Your task to perform on an android device: Show the shopping cart on newegg. Search for corsair k70 on newegg, select the first entry, add it to the cart, then select checkout. Image 0: 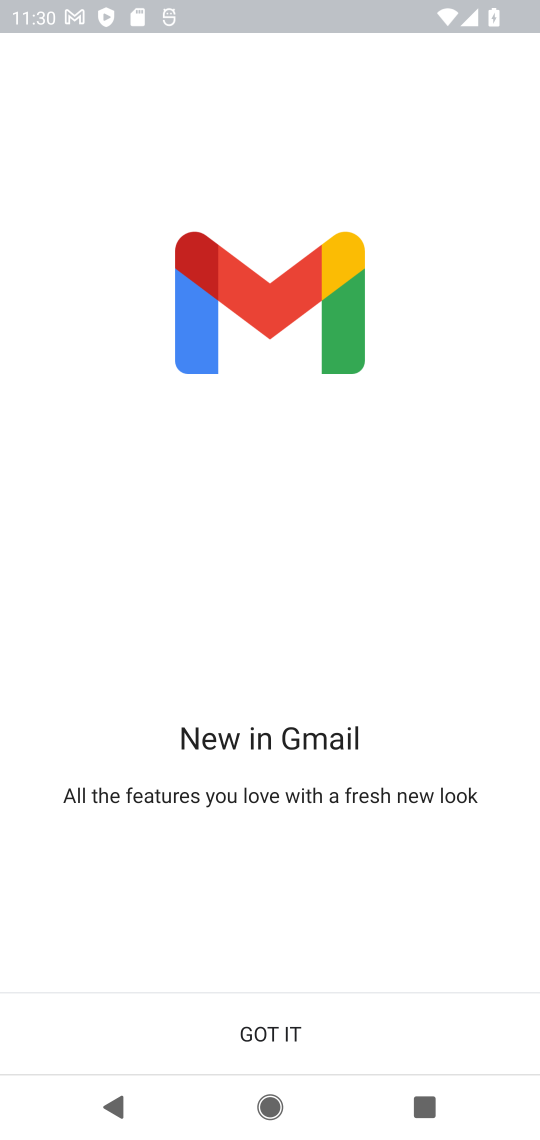
Step 0: press home button
Your task to perform on an android device: Show the shopping cart on newegg. Search for corsair k70 on newegg, select the first entry, add it to the cart, then select checkout. Image 1: 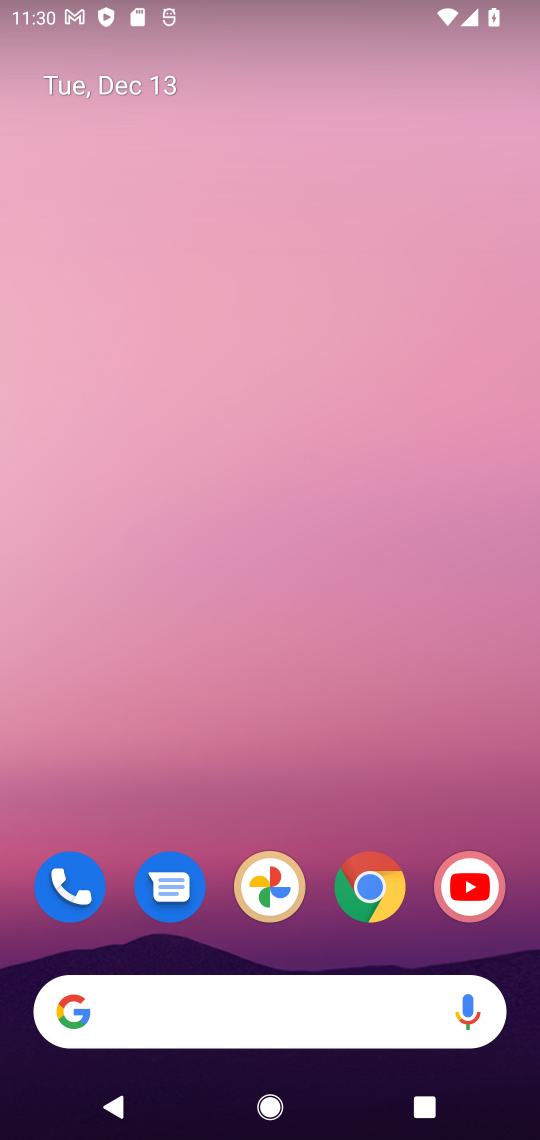
Step 1: drag from (279, 903) to (320, 601)
Your task to perform on an android device: Show the shopping cart on newegg. Search for corsair k70 on newegg, select the first entry, add it to the cart, then select checkout. Image 2: 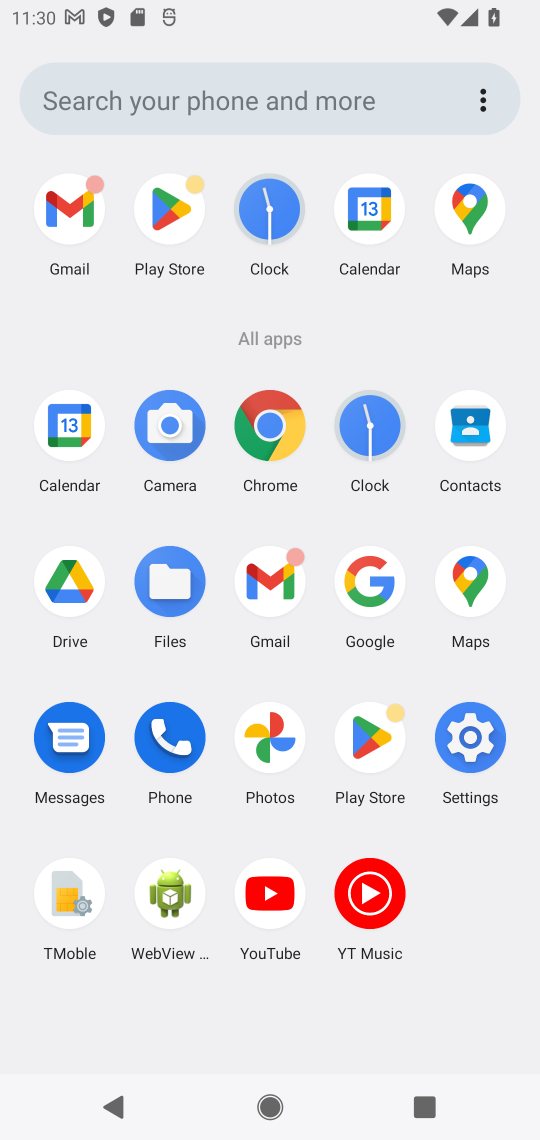
Step 2: click (370, 574)
Your task to perform on an android device: Show the shopping cart on newegg. Search for corsair k70 on newegg, select the first entry, add it to the cart, then select checkout. Image 3: 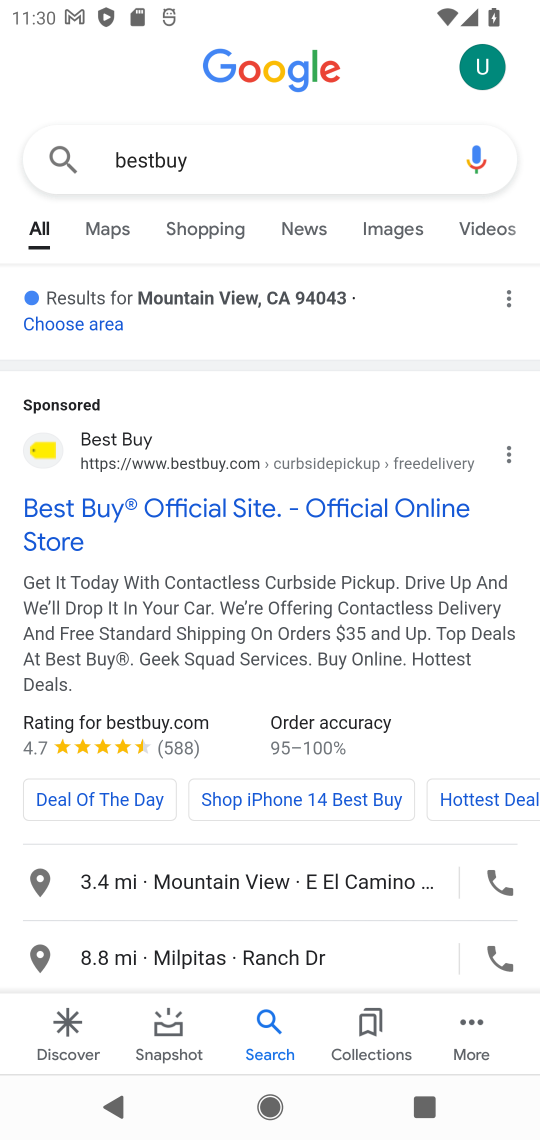
Step 3: click (135, 165)
Your task to perform on an android device: Show the shopping cart on newegg. Search for corsair k70 on newegg, select the first entry, add it to the cart, then select checkout. Image 4: 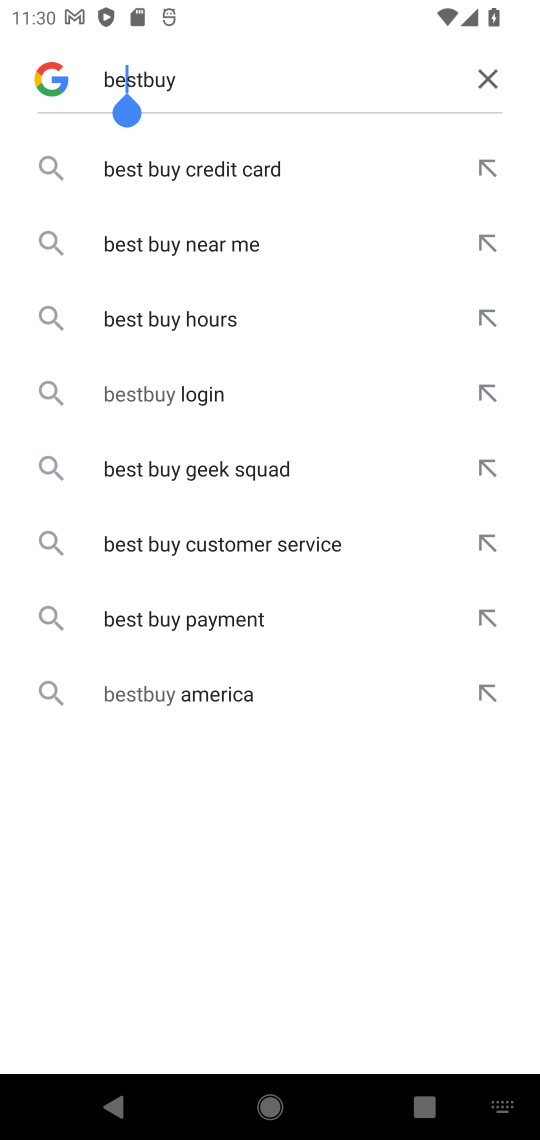
Step 4: click (491, 76)
Your task to perform on an android device: Show the shopping cart on newegg. Search for corsair k70 on newegg, select the first entry, add it to the cart, then select checkout. Image 5: 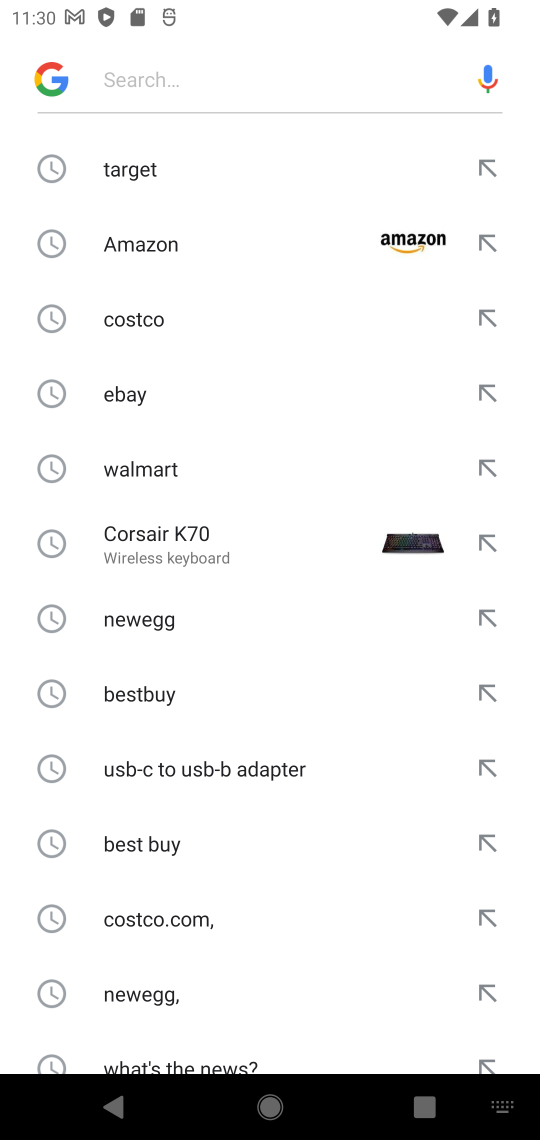
Step 5: click (113, 619)
Your task to perform on an android device: Show the shopping cart on newegg. Search for corsair k70 on newegg, select the first entry, add it to the cart, then select checkout. Image 6: 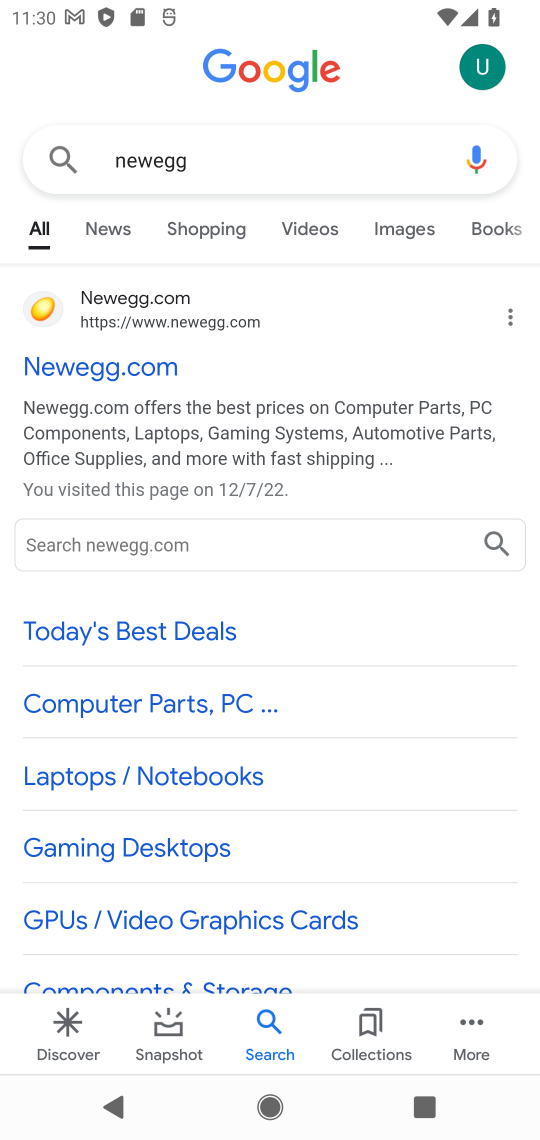
Step 6: click (143, 161)
Your task to perform on an android device: Show the shopping cart on newegg. Search for corsair k70 on newegg, select the first entry, add it to the cart, then select checkout. Image 7: 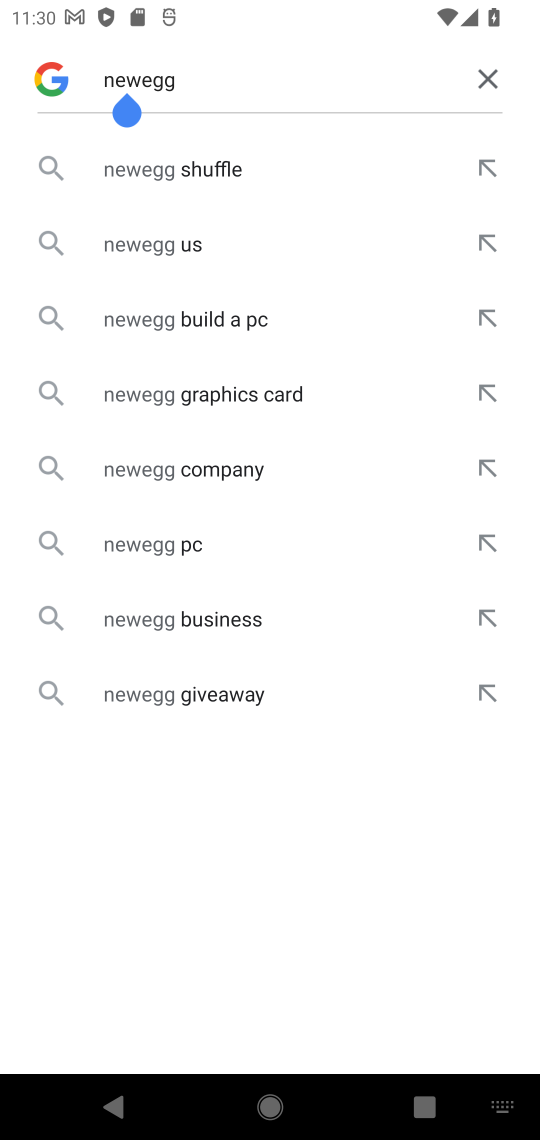
Step 7: click (483, 83)
Your task to perform on an android device: Show the shopping cart on newegg. Search for corsair k70 on newegg, select the first entry, add it to the cart, then select checkout. Image 8: 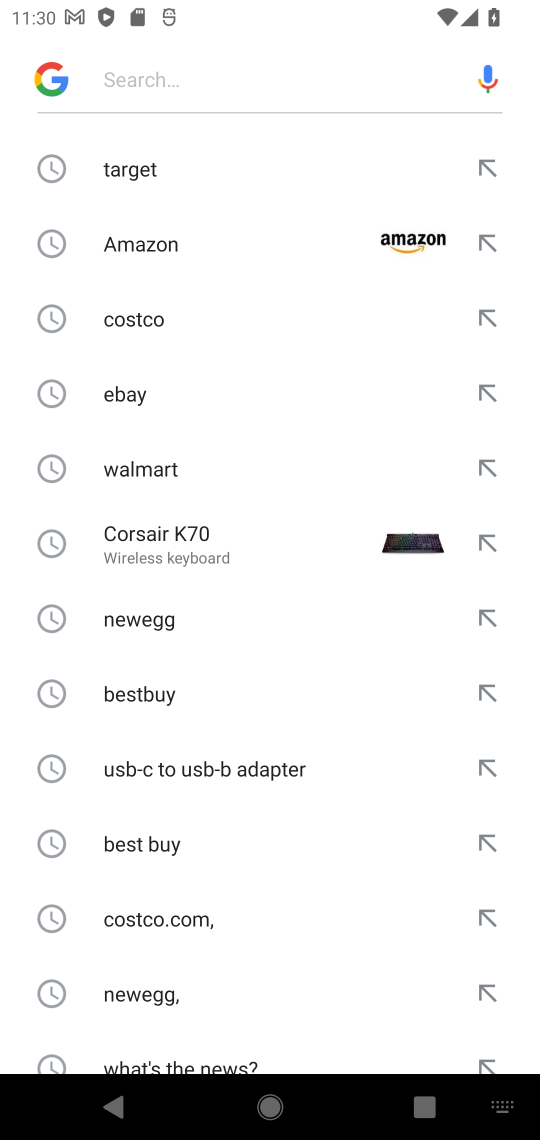
Step 8: click (132, 623)
Your task to perform on an android device: Show the shopping cart on newegg. Search for corsair k70 on newegg, select the first entry, add it to the cart, then select checkout. Image 9: 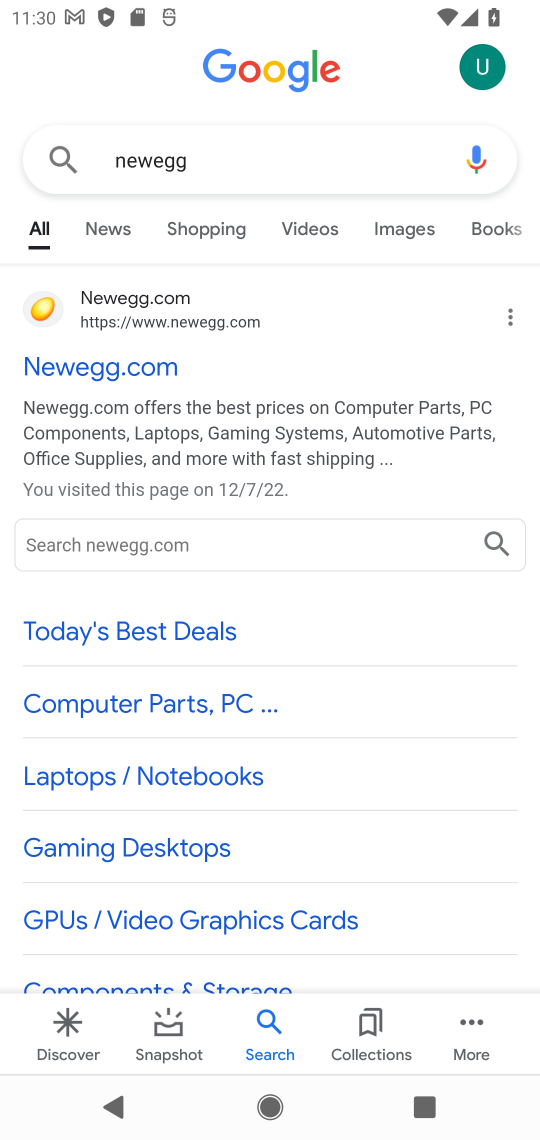
Step 9: click (112, 371)
Your task to perform on an android device: Show the shopping cart on newegg. Search for corsair k70 on newegg, select the first entry, add it to the cart, then select checkout. Image 10: 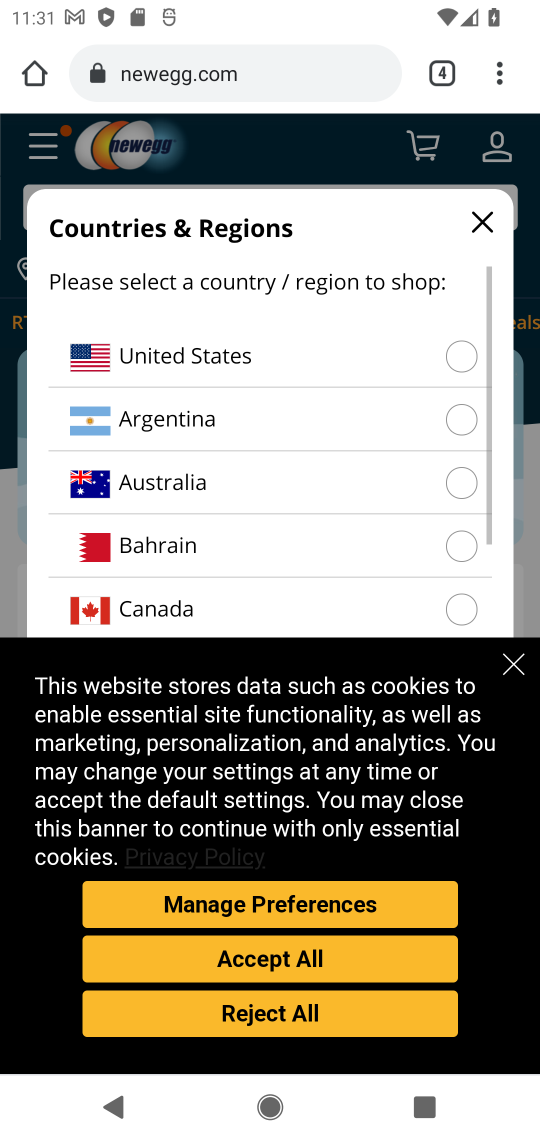
Step 10: click (476, 222)
Your task to perform on an android device: Show the shopping cart on newegg. Search for corsair k70 on newegg, select the first entry, add it to the cart, then select checkout. Image 11: 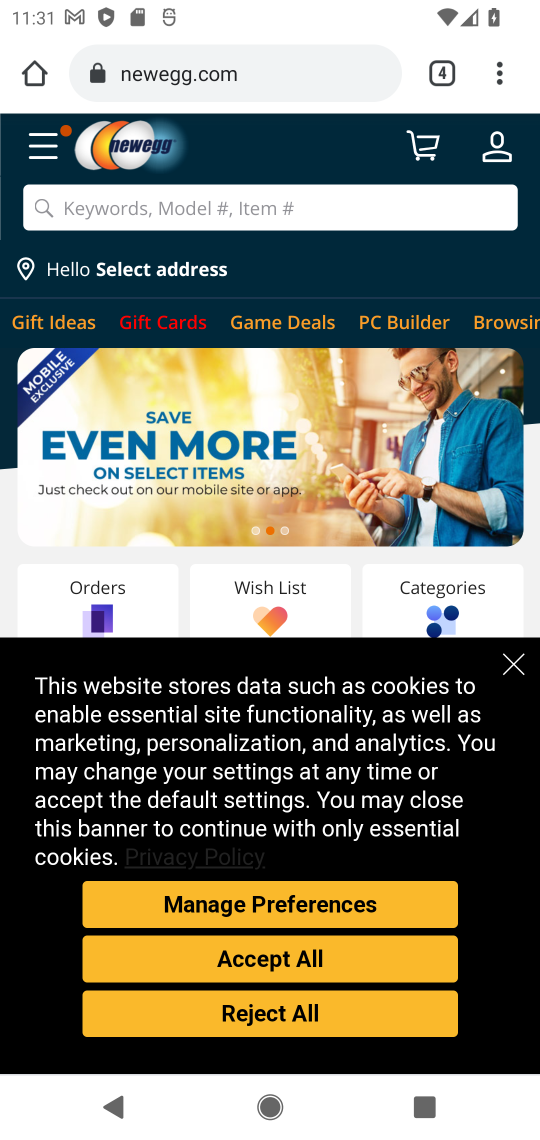
Step 11: click (183, 205)
Your task to perform on an android device: Show the shopping cart on newegg. Search for corsair k70 on newegg, select the first entry, add it to the cart, then select checkout. Image 12: 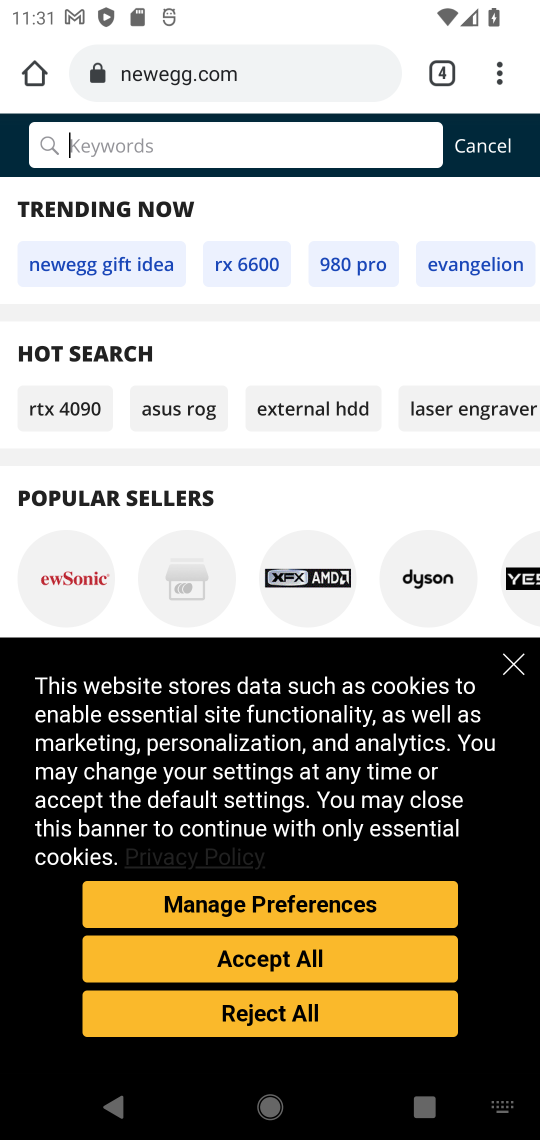
Step 12: click (490, 148)
Your task to perform on an android device: Show the shopping cart on newegg. Search for corsair k70 on newegg, select the first entry, add it to the cart, then select checkout. Image 13: 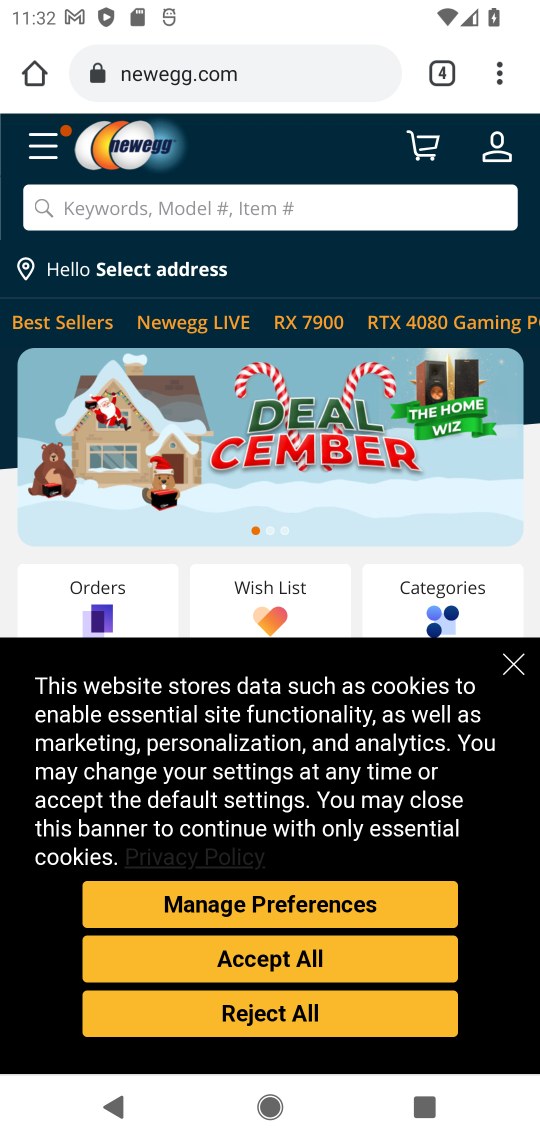
Step 13: click (110, 204)
Your task to perform on an android device: Show the shopping cart on newegg. Search for corsair k70 on newegg, select the first entry, add it to the cart, then select checkout. Image 14: 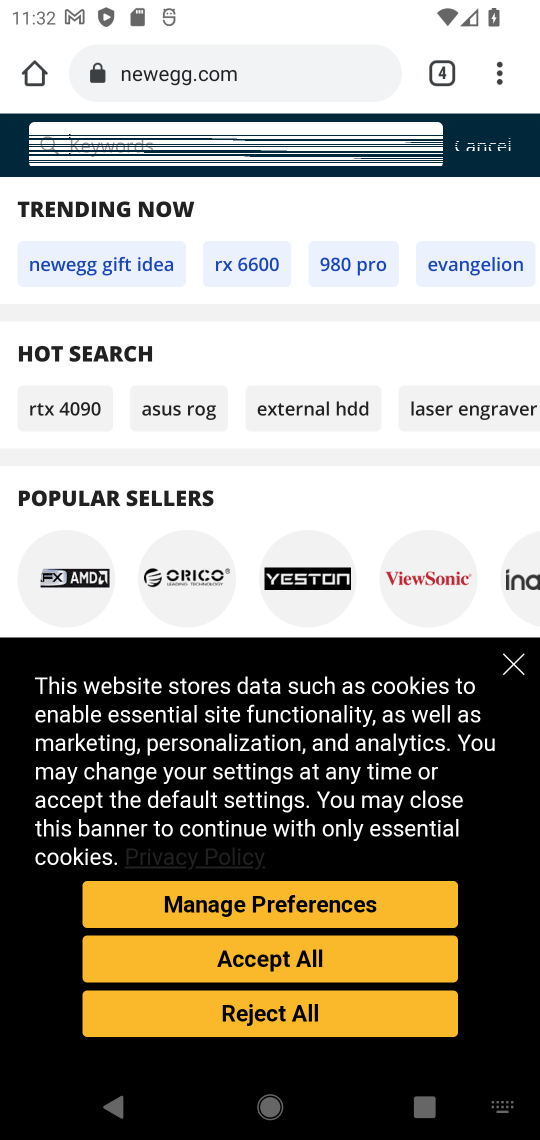
Step 14: type "corsair k70"
Your task to perform on an android device: Show the shopping cart on newegg. Search for corsair k70 on newegg, select the first entry, add it to the cart, then select checkout. Image 15: 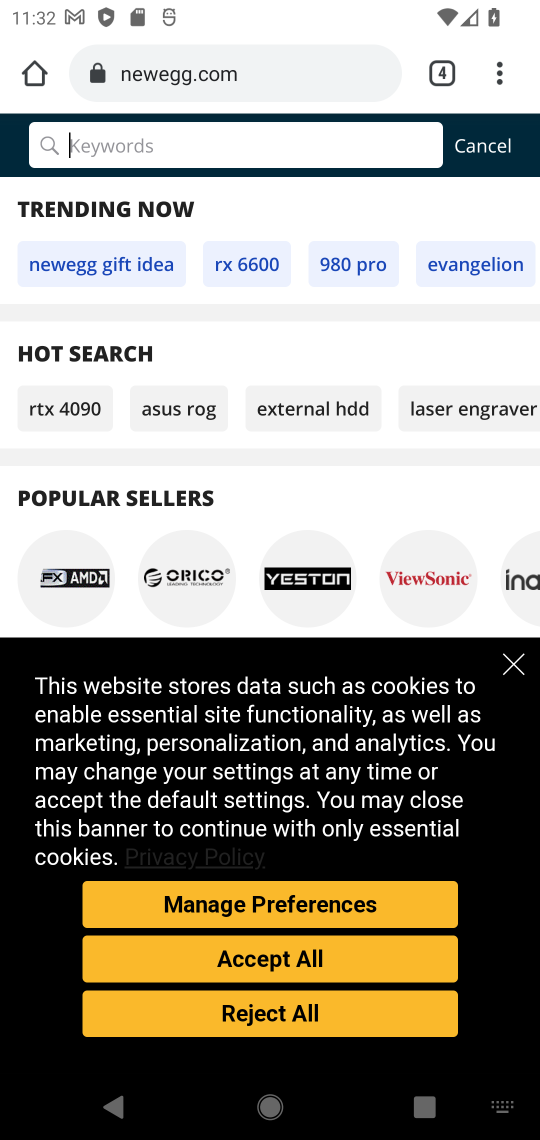
Step 15: click (53, 151)
Your task to perform on an android device: Show the shopping cart on newegg. Search for corsair k70 on newegg, select the first entry, add it to the cart, then select checkout. Image 16: 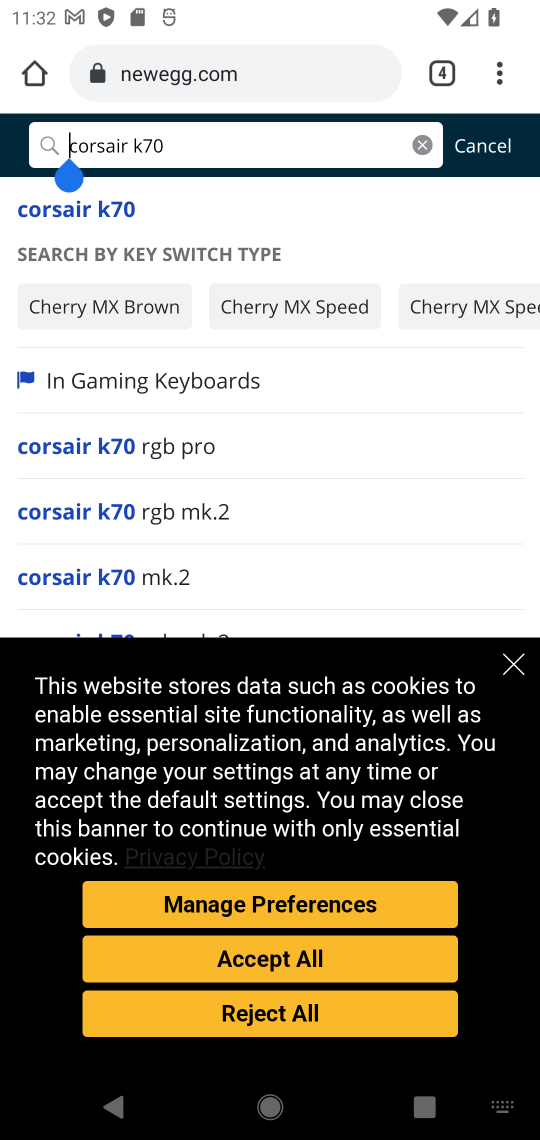
Step 16: click (116, 212)
Your task to perform on an android device: Show the shopping cart on newegg. Search for corsair k70 on newegg, select the first entry, add it to the cart, then select checkout. Image 17: 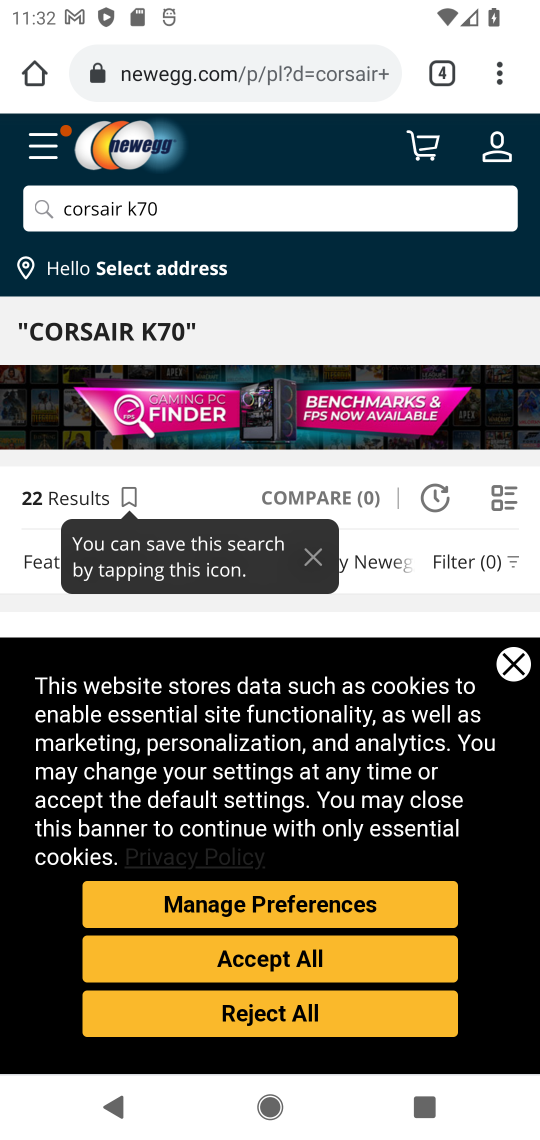
Step 17: click (523, 662)
Your task to perform on an android device: Show the shopping cart on newegg. Search for corsair k70 on newegg, select the first entry, add it to the cart, then select checkout. Image 18: 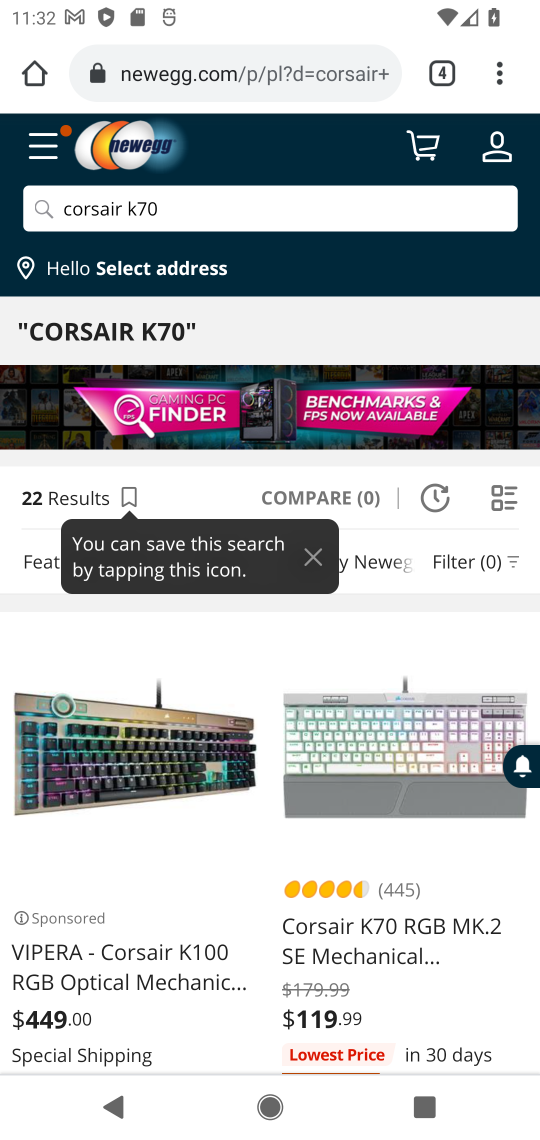
Step 18: drag from (274, 950) to (344, 475)
Your task to perform on an android device: Show the shopping cart on newegg. Search for corsair k70 on newegg, select the first entry, add it to the cart, then select checkout. Image 19: 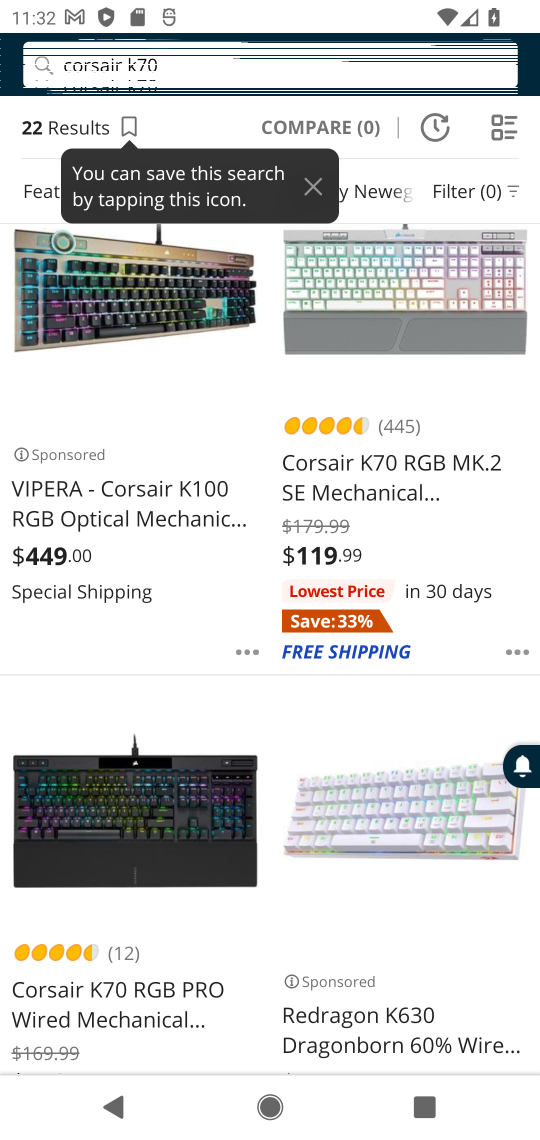
Step 19: click (142, 307)
Your task to perform on an android device: Show the shopping cart on newegg. Search for corsair k70 on newegg, select the first entry, add it to the cart, then select checkout. Image 20: 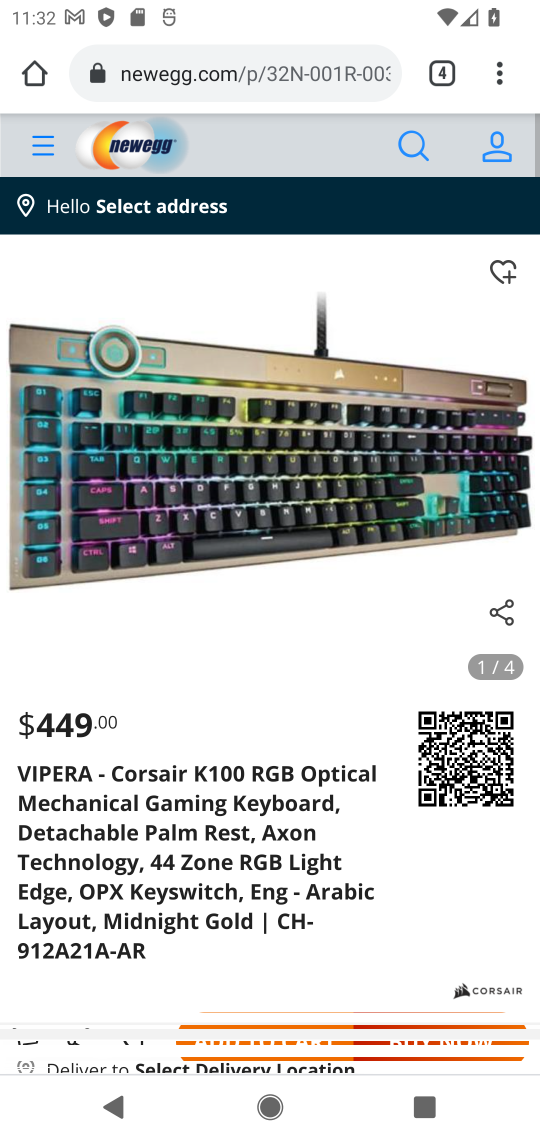
Step 20: drag from (287, 826) to (367, 387)
Your task to perform on an android device: Show the shopping cart on newegg. Search for corsair k70 on newegg, select the first entry, add it to the cart, then select checkout. Image 21: 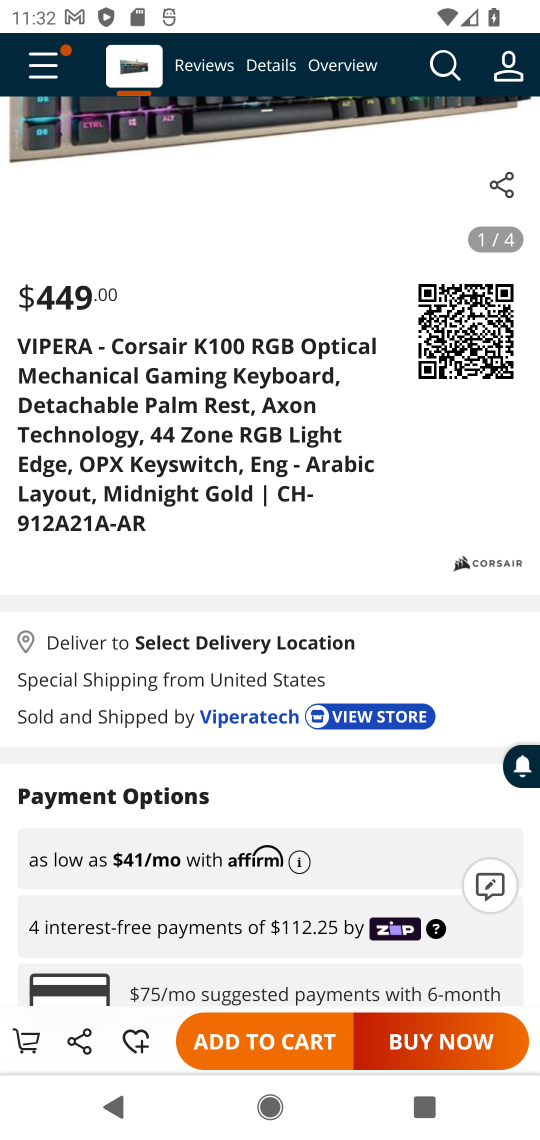
Step 21: click (273, 1040)
Your task to perform on an android device: Show the shopping cart on newegg. Search for corsair k70 on newegg, select the first entry, add it to the cart, then select checkout. Image 22: 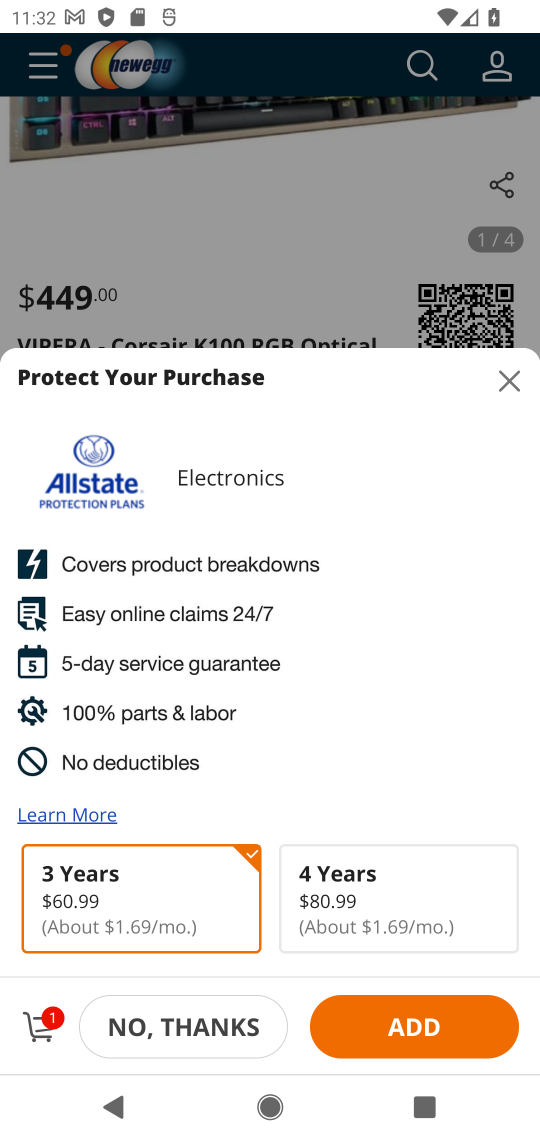
Step 22: click (516, 375)
Your task to perform on an android device: Show the shopping cart on newegg. Search for corsair k70 on newegg, select the first entry, add it to the cart, then select checkout. Image 23: 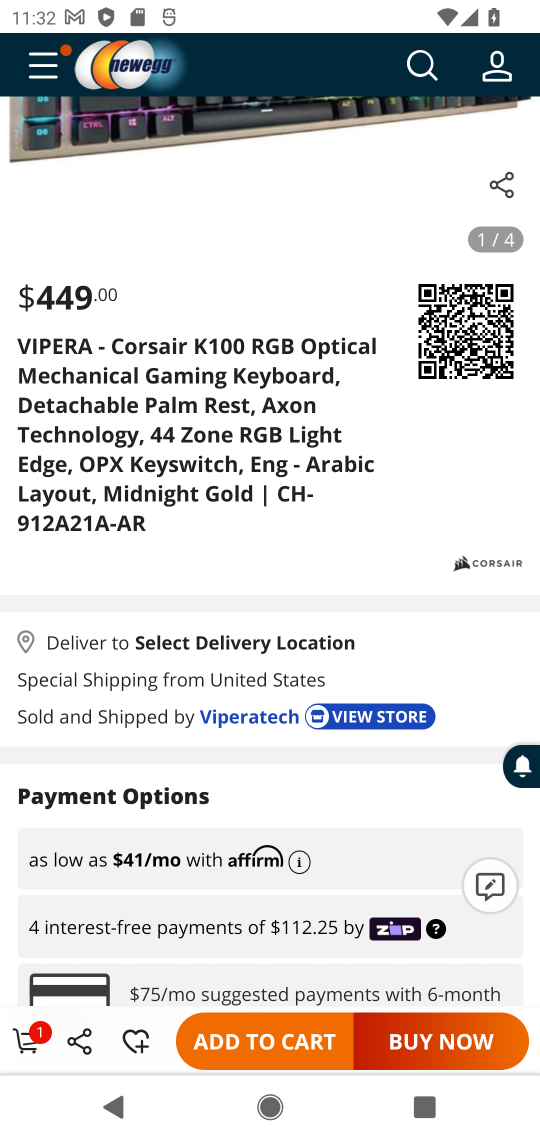
Step 23: click (228, 1042)
Your task to perform on an android device: Show the shopping cart on newegg. Search for corsair k70 on newegg, select the first entry, add it to the cart, then select checkout. Image 24: 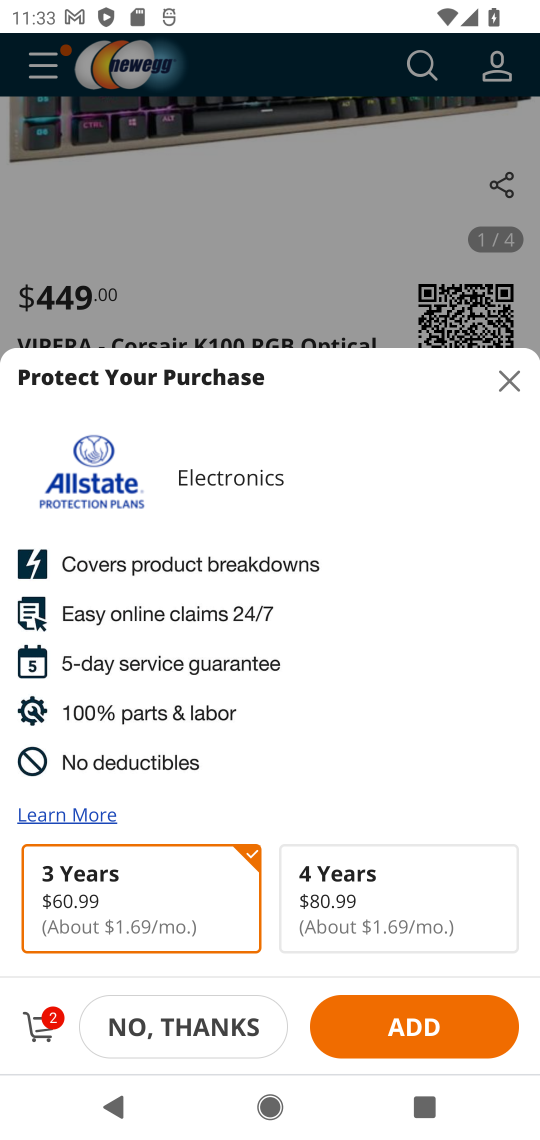
Step 24: click (39, 1035)
Your task to perform on an android device: Show the shopping cart on newegg. Search for corsair k70 on newegg, select the first entry, add it to the cart, then select checkout. Image 25: 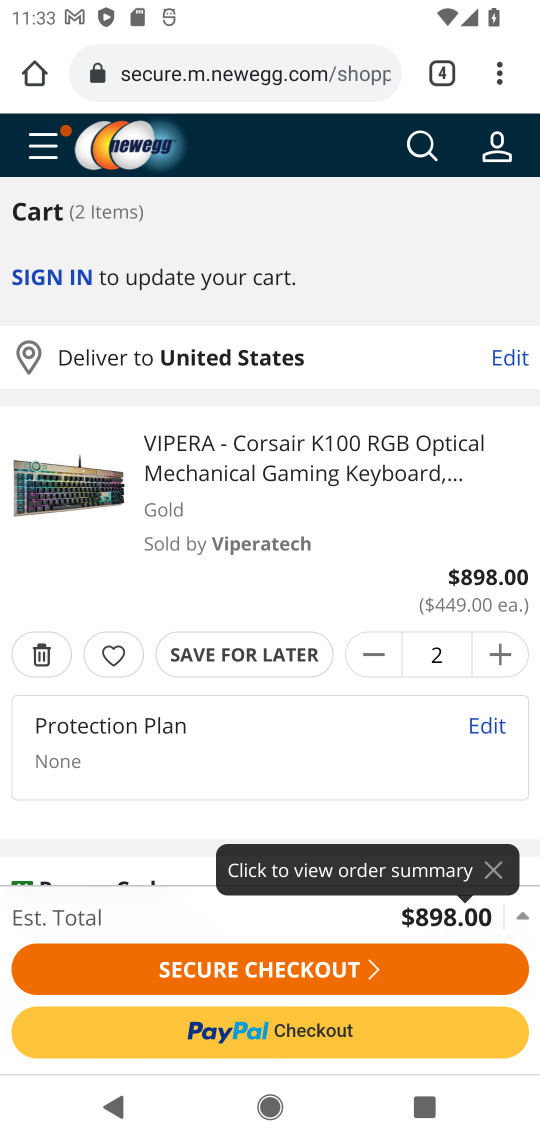
Step 25: click (188, 972)
Your task to perform on an android device: Show the shopping cart on newegg. Search for corsair k70 on newegg, select the first entry, add it to the cart, then select checkout. Image 26: 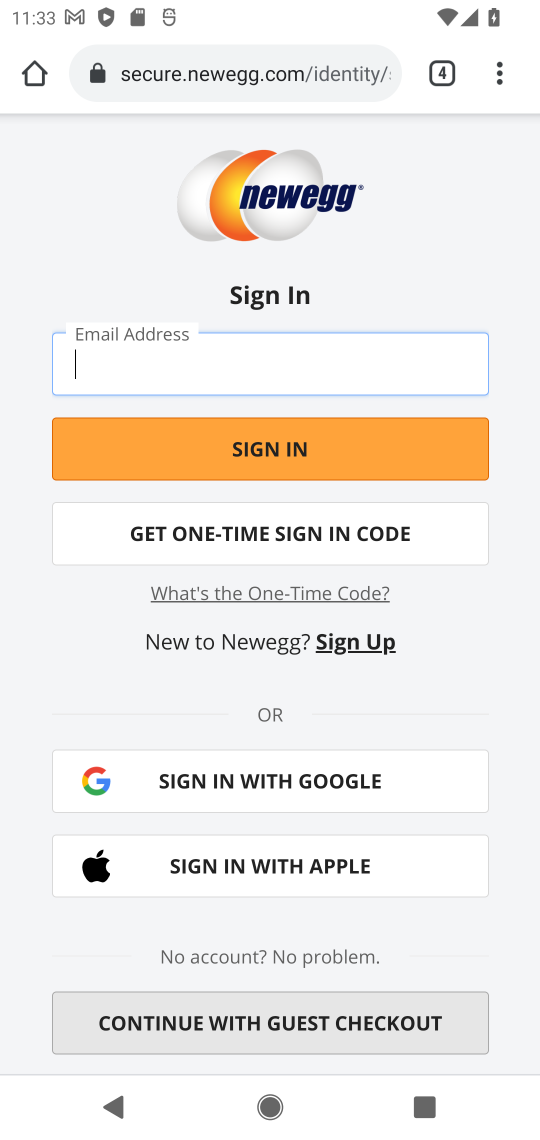
Step 26: task complete